Your task to perform on an android device: install app "ColorNote Notepad Notes" Image 0: 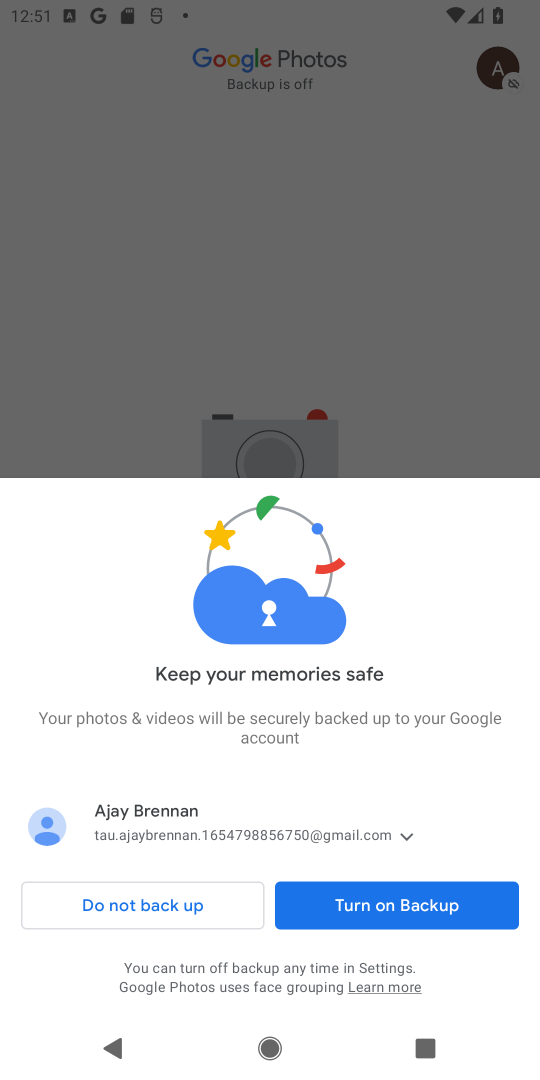
Step 0: press home button
Your task to perform on an android device: install app "ColorNote Notepad Notes" Image 1: 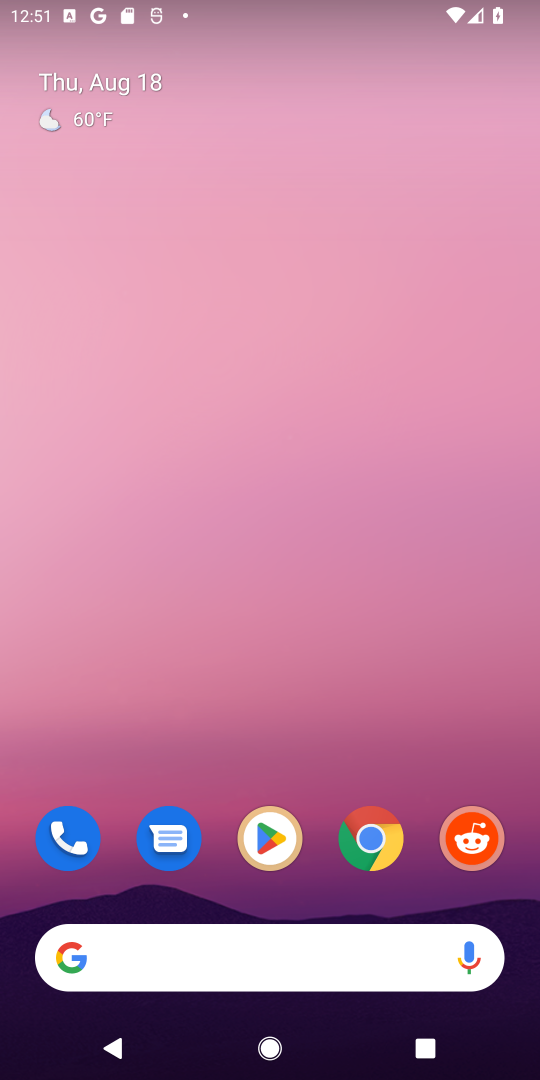
Step 1: click (283, 821)
Your task to perform on an android device: install app "ColorNote Notepad Notes" Image 2: 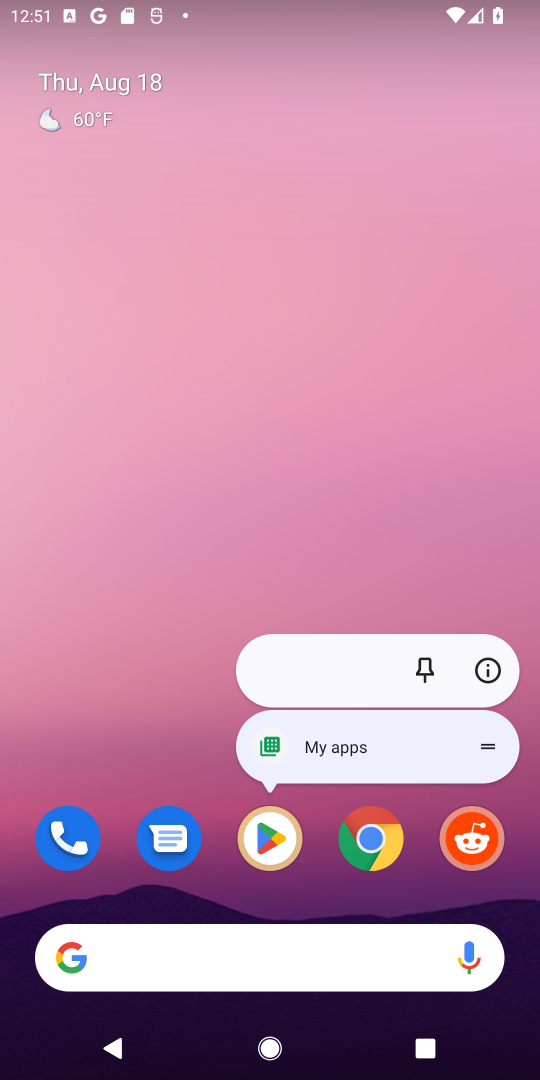
Step 2: click (283, 828)
Your task to perform on an android device: install app "ColorNote Notepad Notes" Image 3: 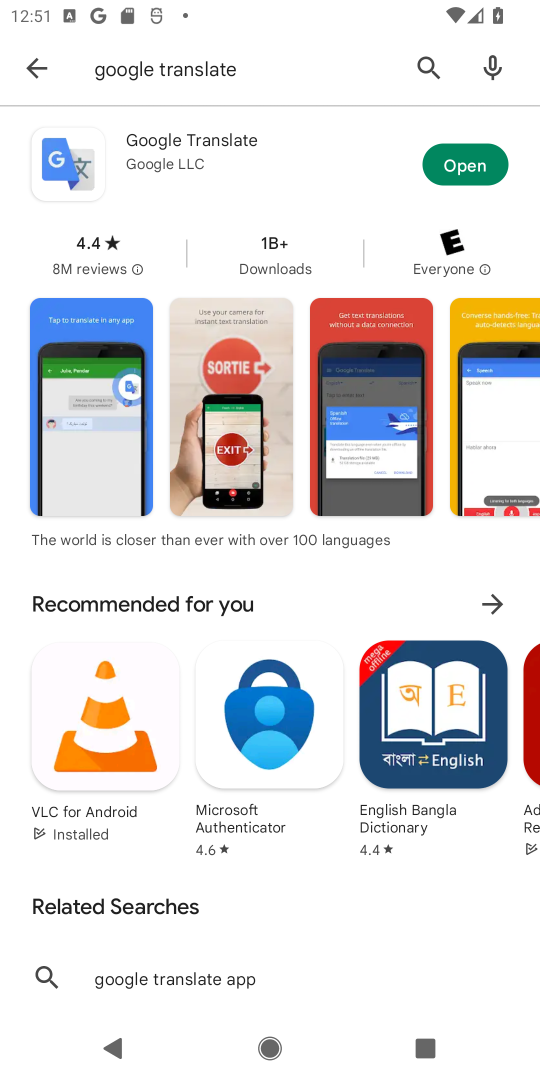
Step 3: click (420, 64)
Your task to perform on an android device: install app "ColorNote Notepad Notes" Image 4: 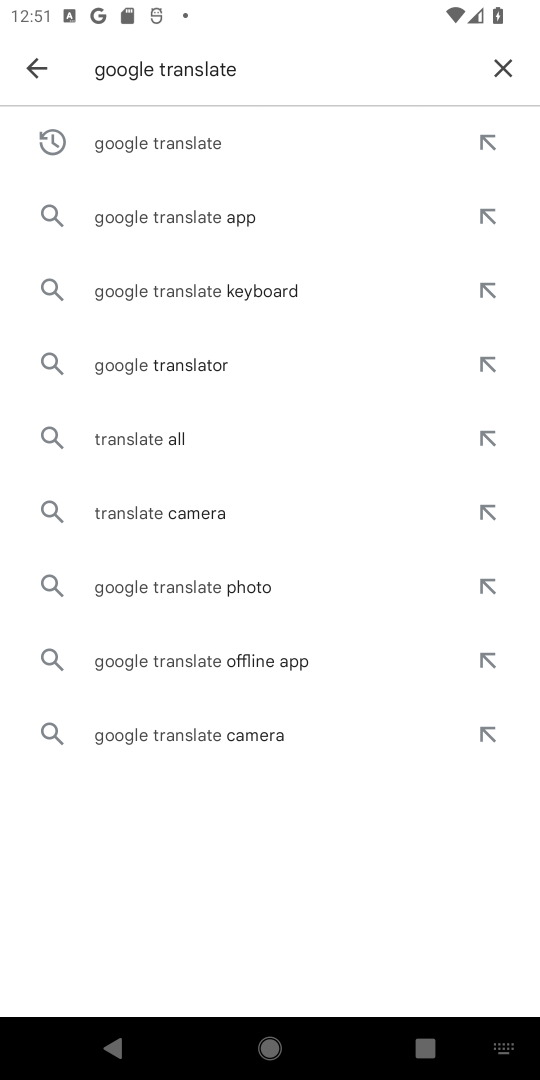
Step 4: click (498, 59)
Your task to perform on an android device: install app "ColorNote Notepad Notes" Image 5: 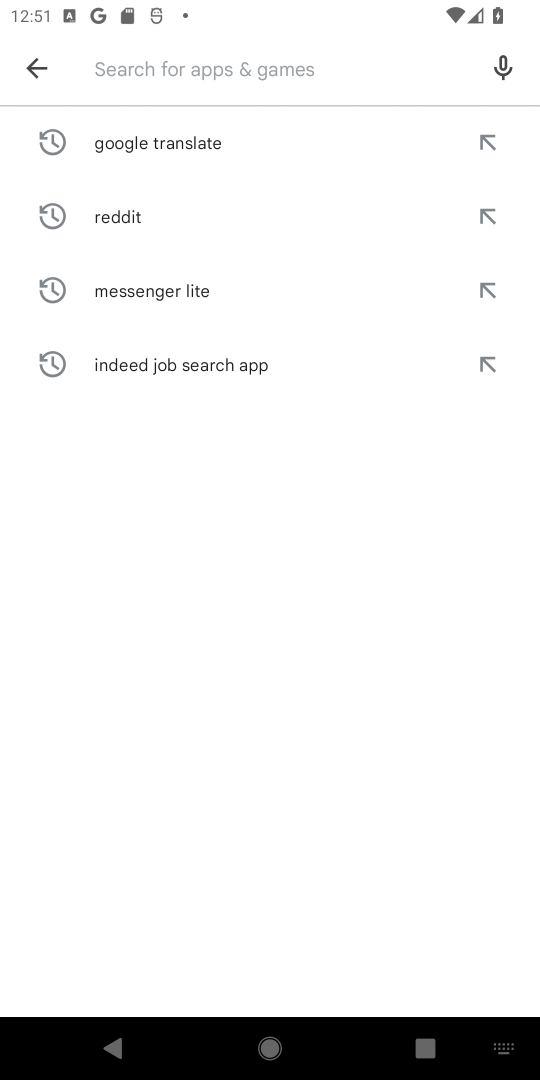
Step 5: type "ColorNote Notepad Notes"
Your task to perform on an android device: install app "ColorNote Notepad Notes" Image 6: 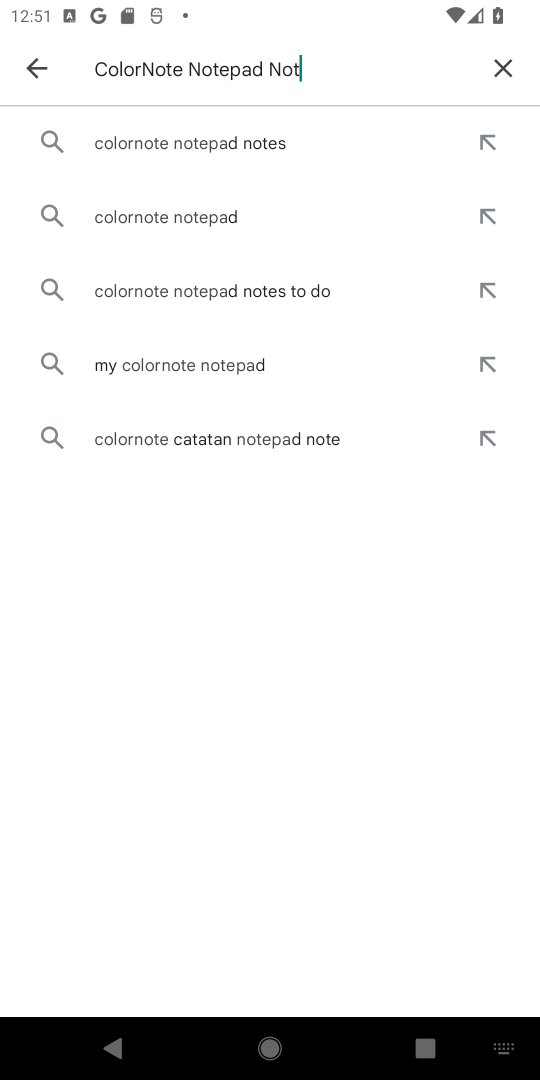
Step 6: type ""
Your task to perform on an android device: install app "ColorNote Notepad Notes" Image 7: 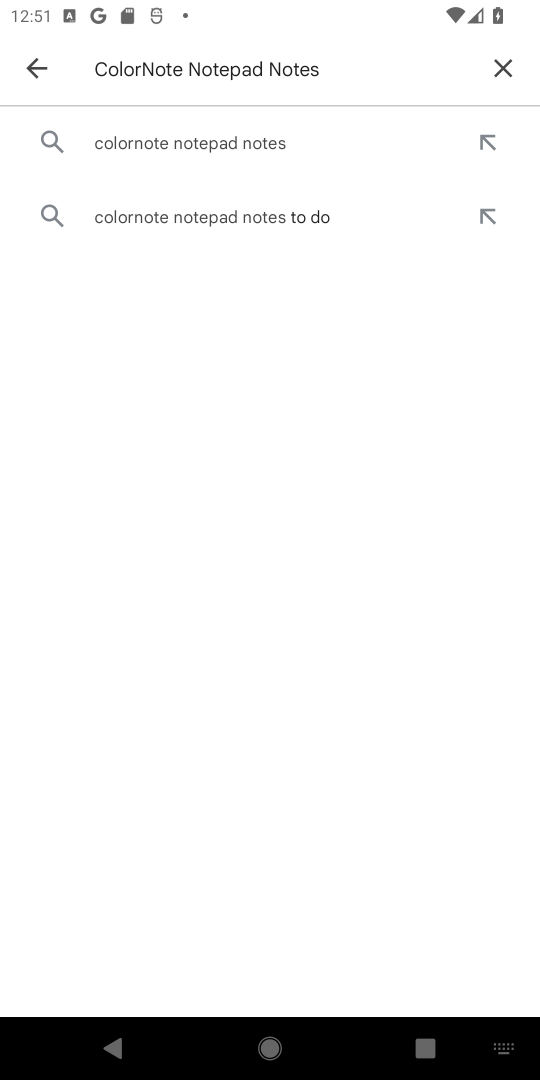
Step 7: click (251, 139)
Your task to perform on an android device: install app "ColorNote Notepad Notes" Image 8: 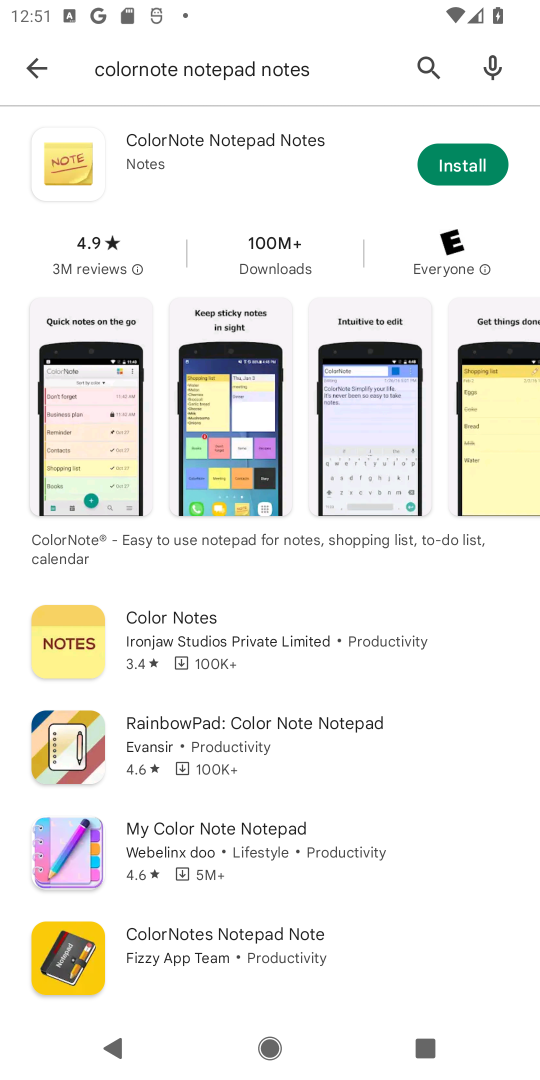
Step 8: click (445, 162)
Your task to perform on an android device: install app "ColorNote Notepad Notes" Image 9: 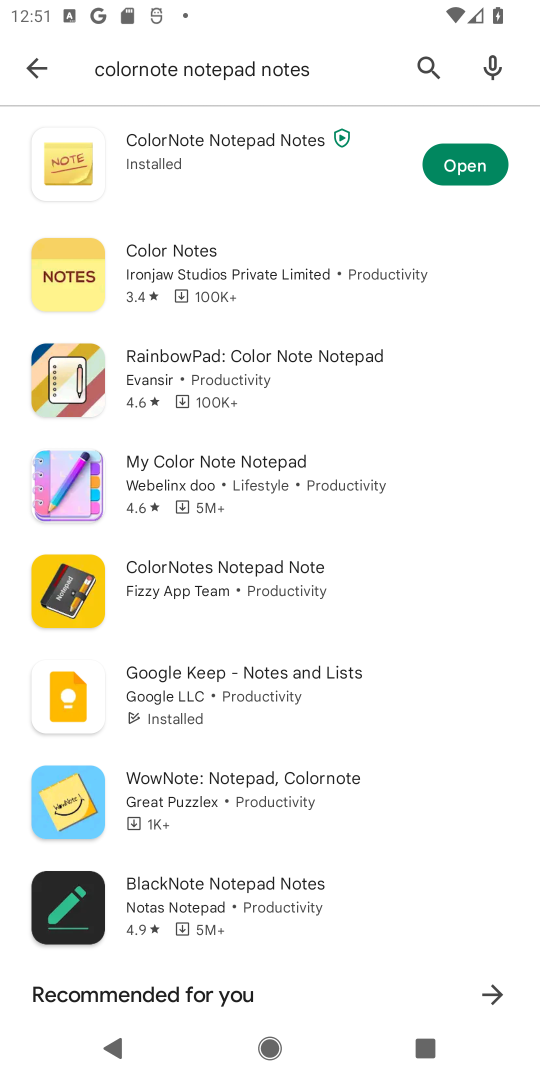
Step 9: task complete